Your task to perform on an android device: set an alarm Image 0: 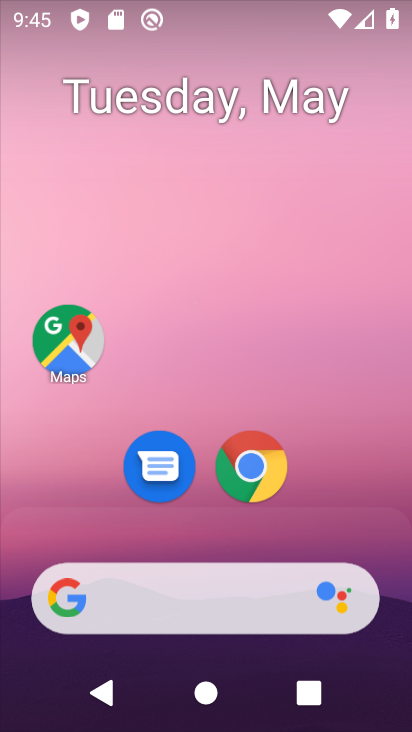
Step 0: drag from (251, 526) to (238, 156)
Your task to perform on an android device: set an alarm Image 1: 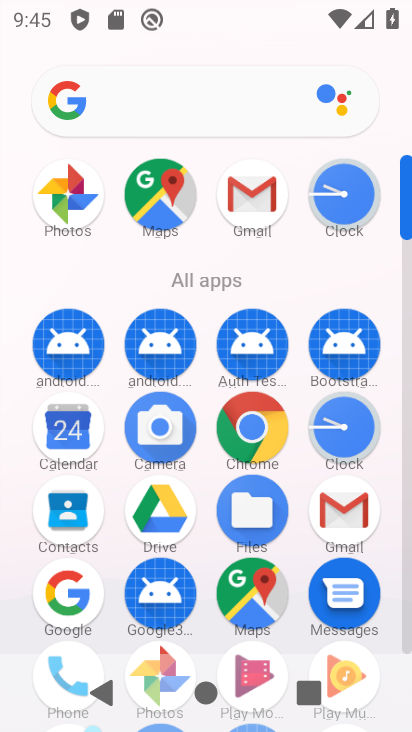
Step 1: drag from (266, 640) to (196, 42)
Your task to perform on an android device: set an alarm Image 2: 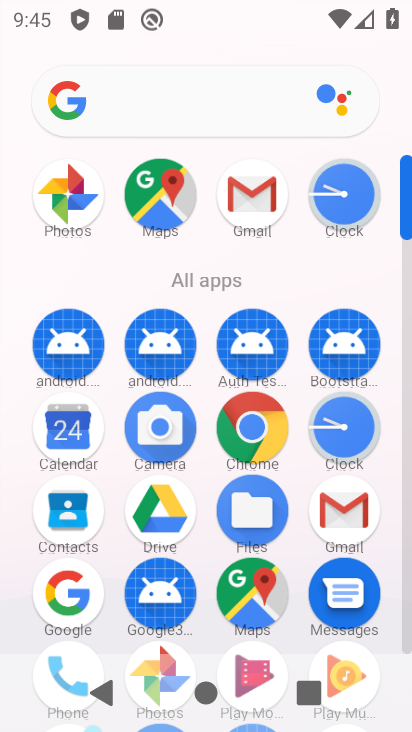
Step 2: click (339, 202)
Your task to perform on an android device: set an alarm Image 3: 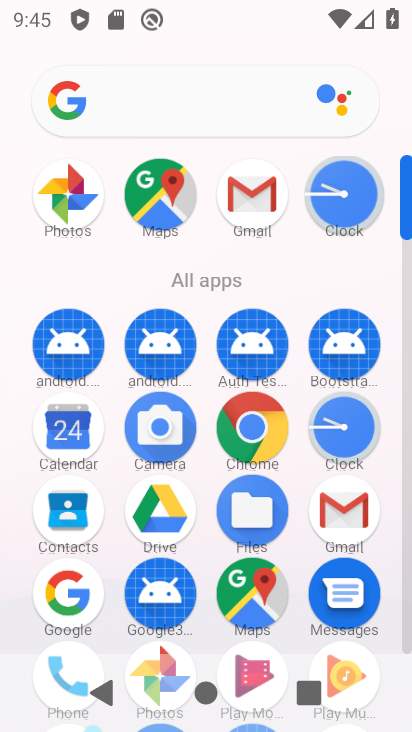
Step 3: click (339, 202)
Your task to perform on an android device: set an alarm Image 4: 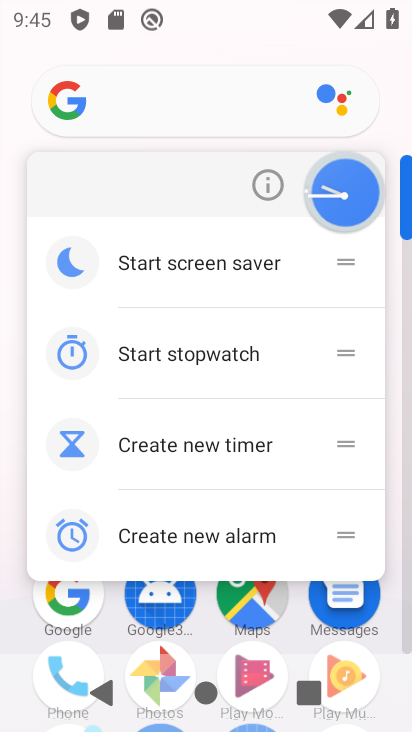
Step 4: click (343, 204)
Your task to perform on an android device: set an alarm Image 5: 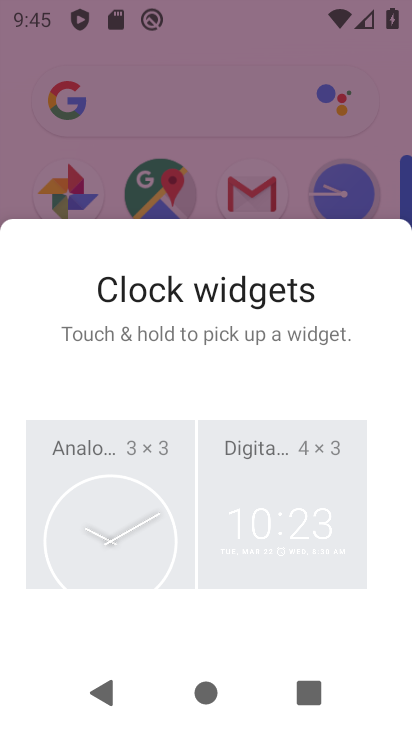
Step 5: click (360, 149)
Your task to perform on an android device: set an alarm Image 6: 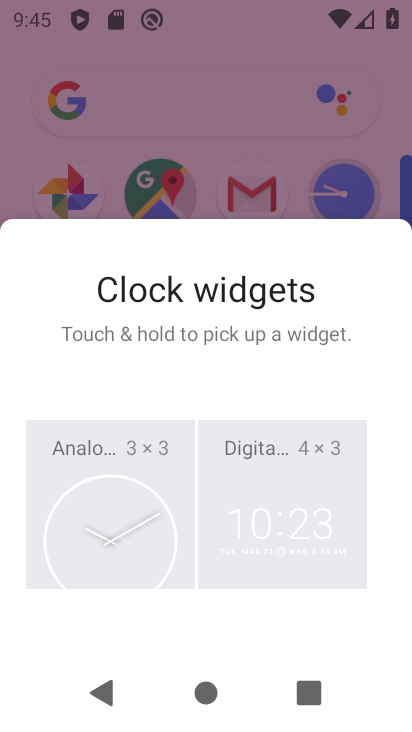
Step 6: click (371, 153)
Your task to perform on an android device: set an alarm Image 7: 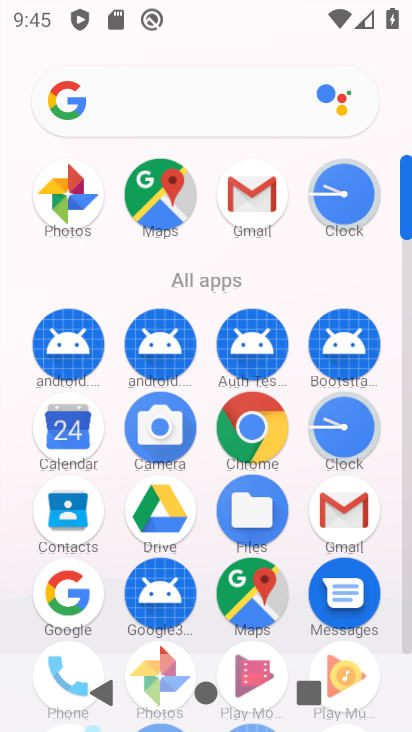
Step 7: click (371, 153)
Your task to perform on an android device: set an alarm Image 8: 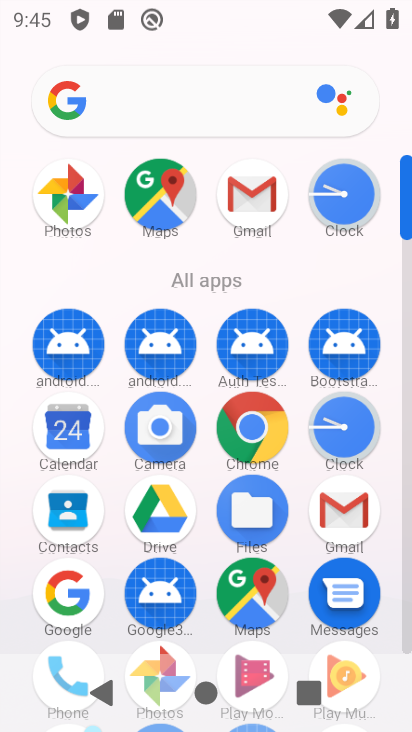
Step 8: click (345, 202)
Your task to perform on an android device: set an alarm Image 9: 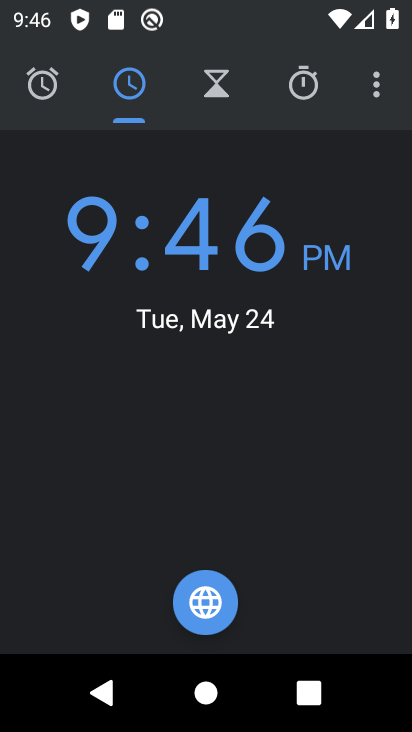
Step 9: click (62, 83)
Your task to perform on an android device: set an alarm Image 10: 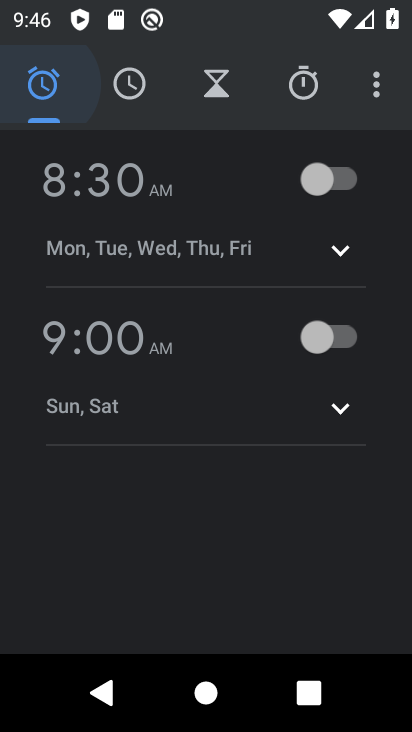
Step 10: click (53, 90)
Your task to perform on an android device: set an alarm Image 11: 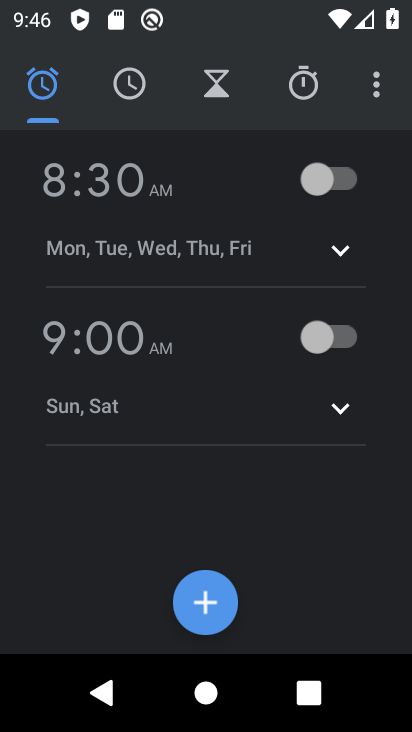
Step 11: click (315, 173)
Your task to perform on an android device: set an alarm Image 12: 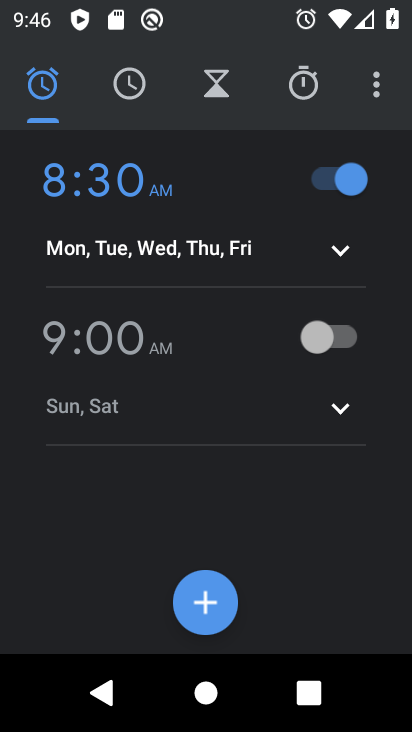
Step 12: task complete